Your task to perform on an android device: turn on notifications settings in the gmail app Image 0: 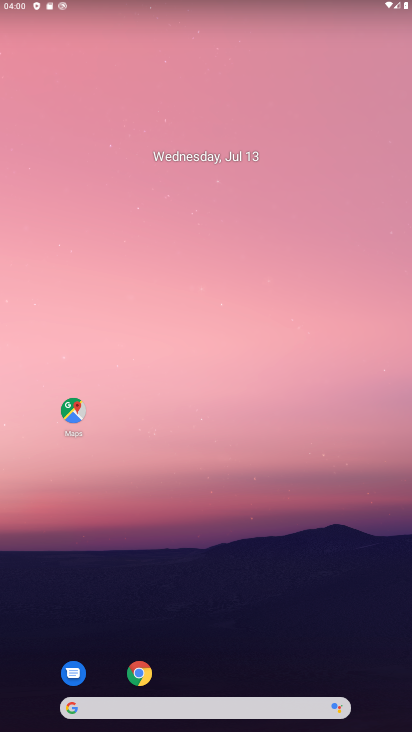
Step 0: drag from (325, 658) to (342, 92)
Your task to perform on an android device: turn on notifications settings in the gmail app Image 1: 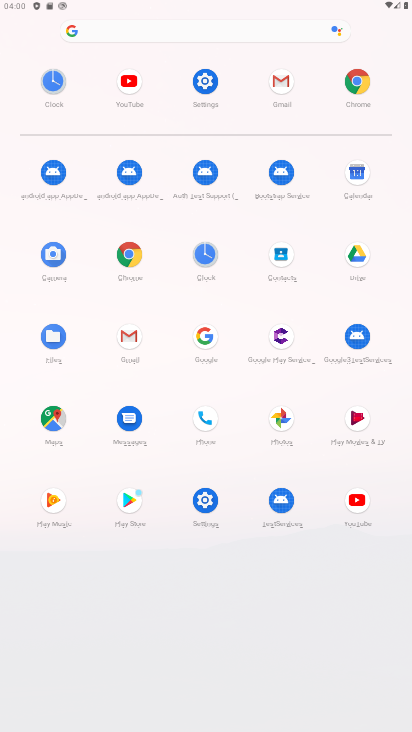
Step 1: click (142, 330)
Your task to perform on an android device: turn on notifications settings in the gmail app Image 2: 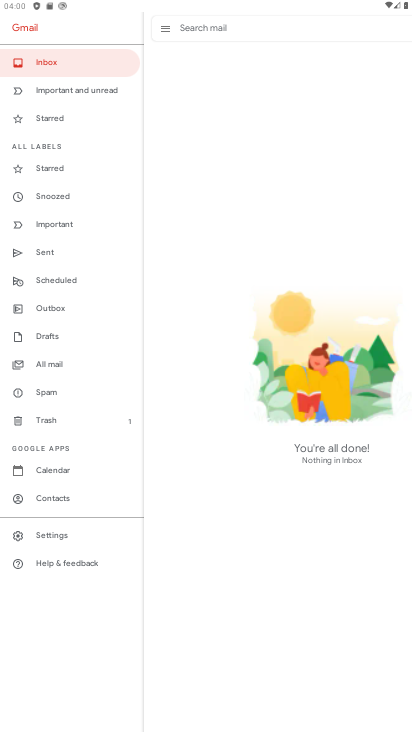
Step 2: press home button
Your task to perform on an android device: turn on notifications settings in the gmail app Image 3: 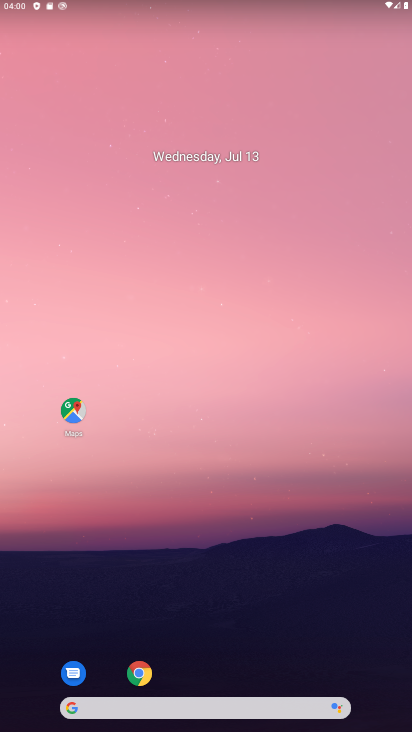
Step 3: drag from (277, 251) to (275, 176)
Your task to perform on an android device: turn on notifications settings in the gmail app Image 4: 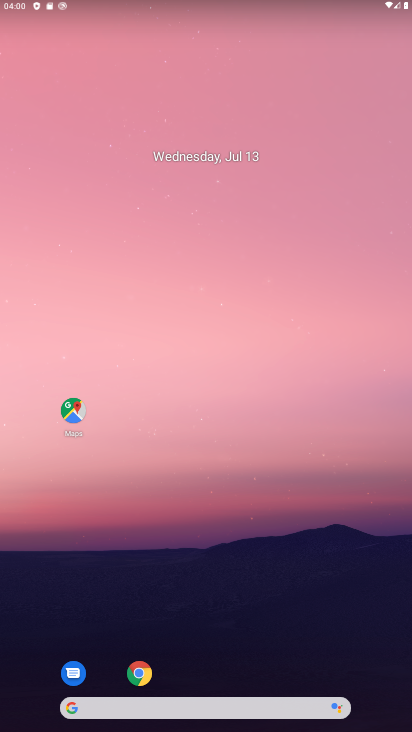
Step 4: drag from (275, 689) to (259, 81)
Your task to perform on an android device: turn on notifications settings in the gmail app Image 5: 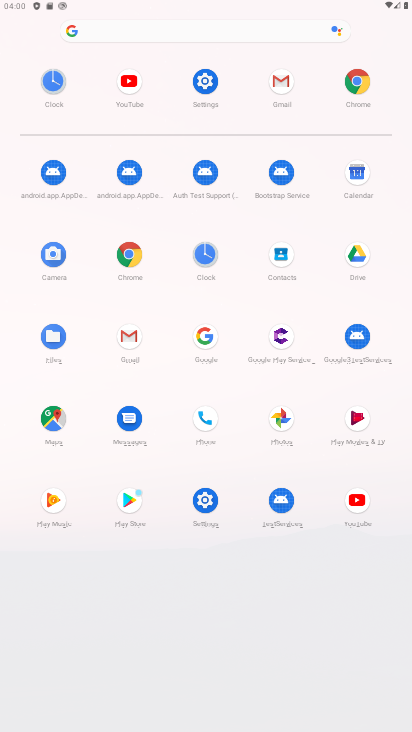
Step 5: click (120, 350)
Your task to perform on an android device: turn on notifications settings in the gmail app Image 6: 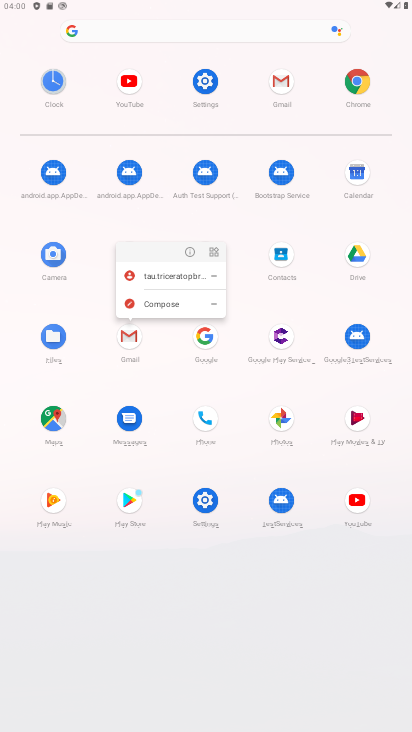
Step 6: click (197, 256)
Your task to perform on an android device: turn on notifications settings in the gmail app Image 7: 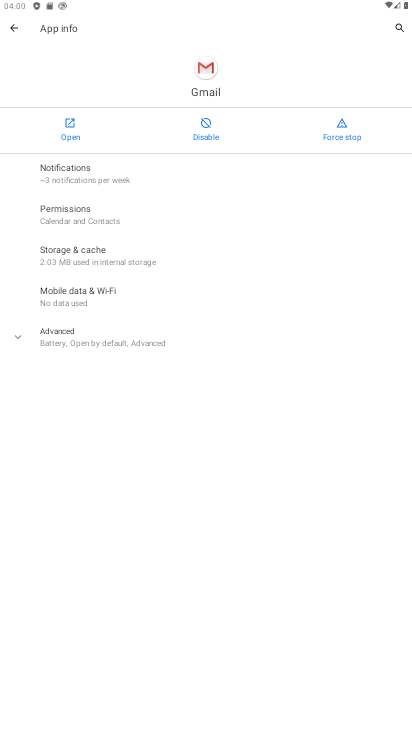
Step 7: click (124, 177)
Your task to perform on an android device: turn on notifications settings in the gmail app Image 8: 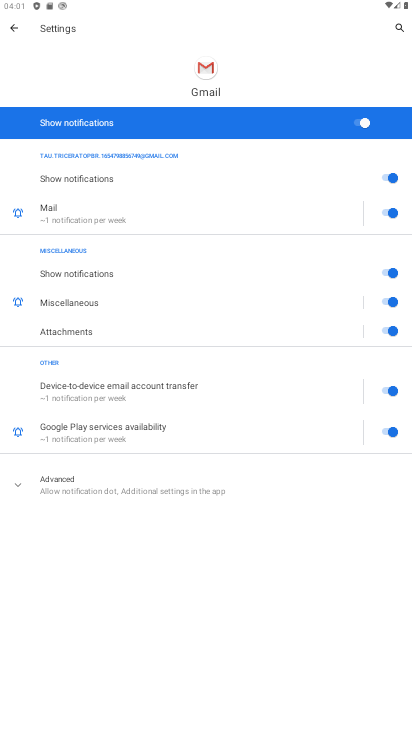
Step 8: task complete